Your task to perform on an android device: check out phone information Image 0: 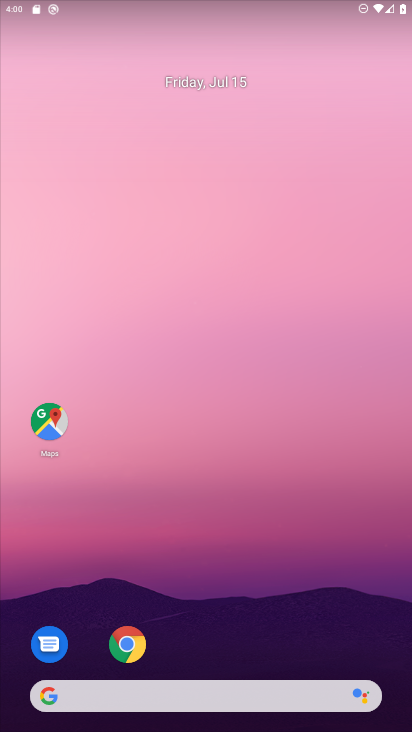
Step 0: drag from (117, 410) to (219, 194)
Your task to perform on an android device: check out phone information Image 1: 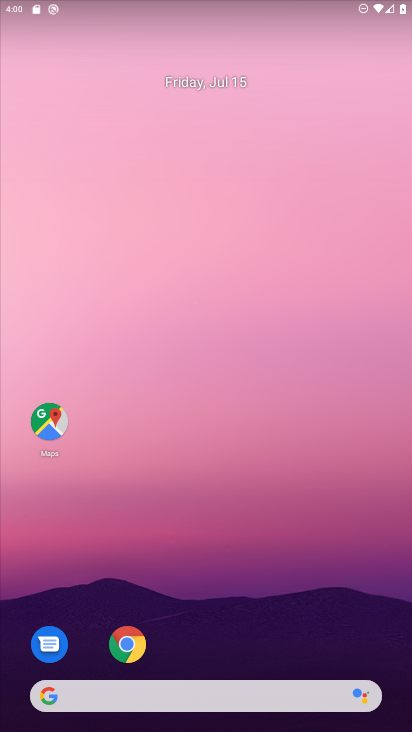
Step 1: drag from (14, 641) to (258, 125)
Your task to perform on an android device: check out phone information Image 2: 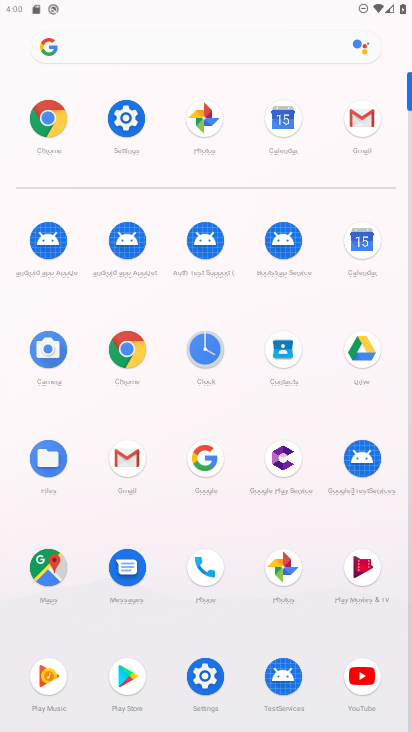
Step 2: click (197, 565)
Your task to perform on an android device: check out phone information Image 3: 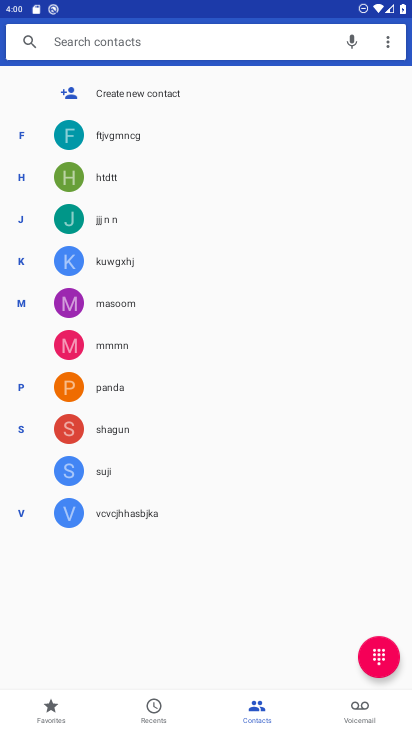
Step 3: task complete